Your task to perform on an android device: What's a good restaurant in San Diego? Image 0: 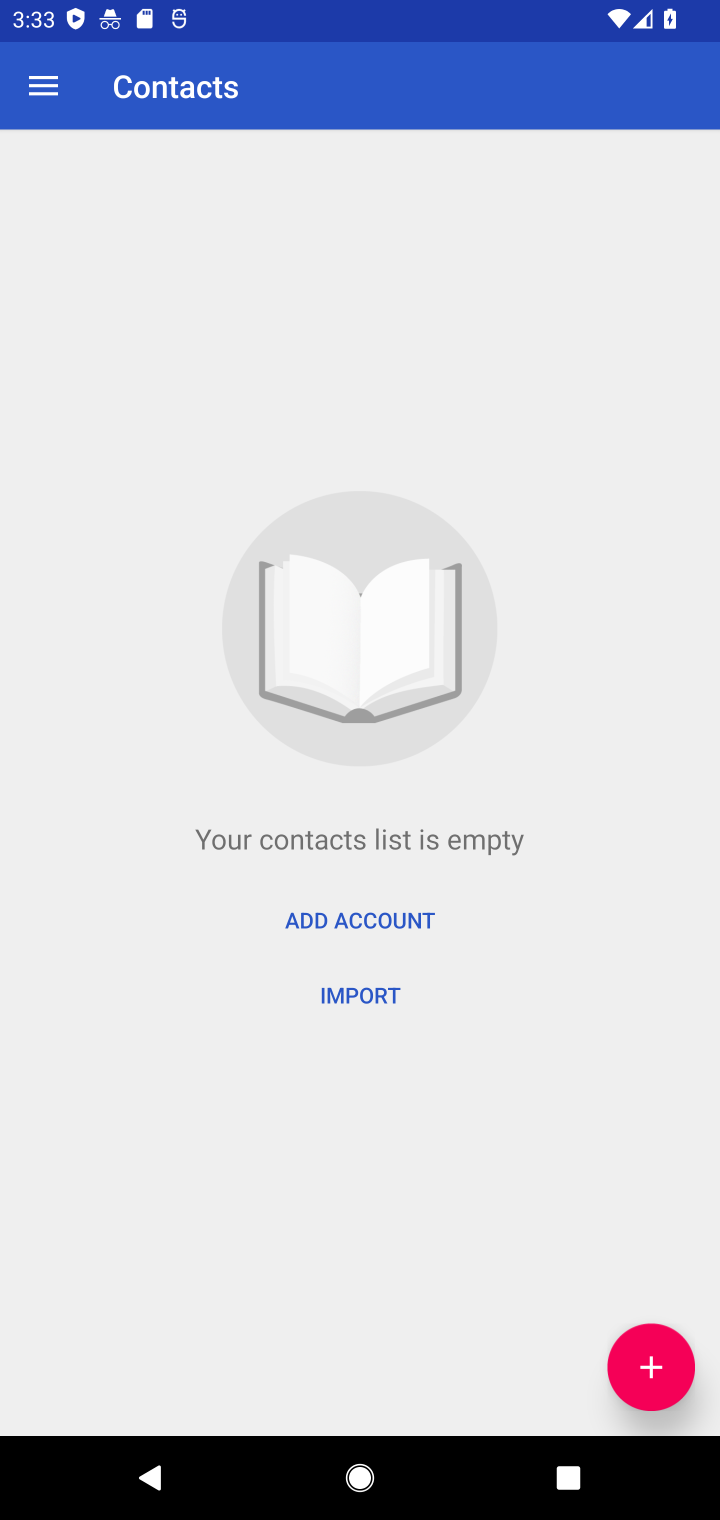
Step 0: press home button
Your task to perform on an android device: What's a good restaurant in San Diego? Image 1: 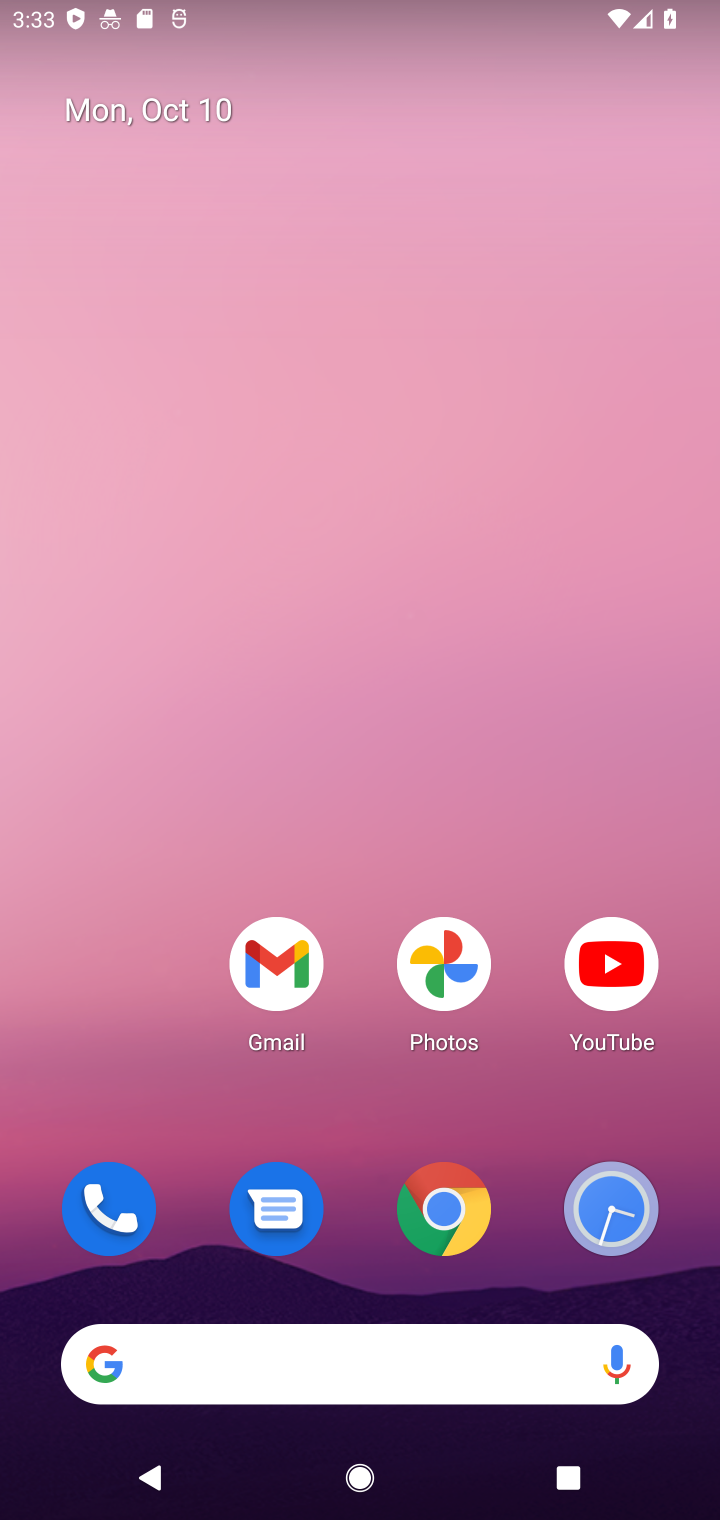
Step 1: drag from (48, 818) to (202, 1339)
Your task to perform on an android device: What's a good restaurant in San Diego? Image 2: 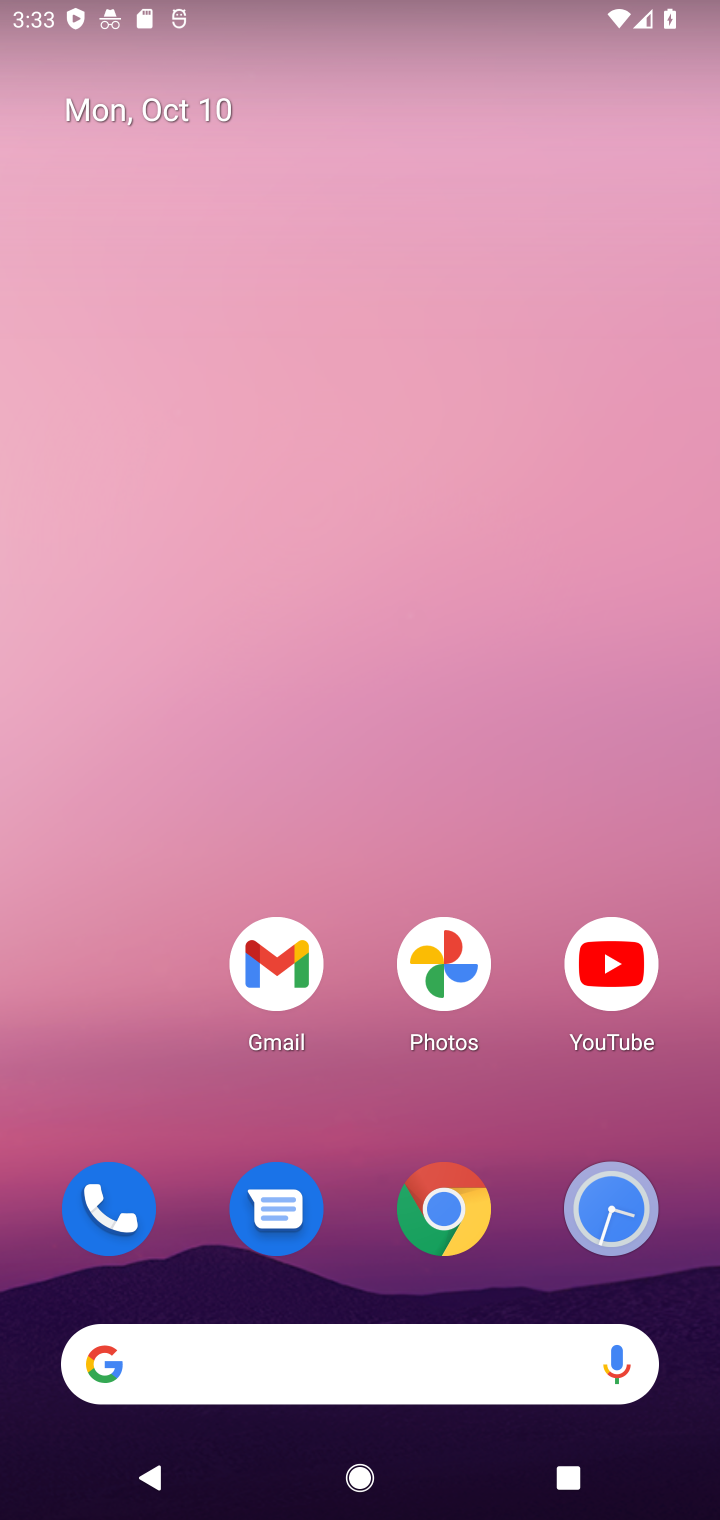
Step 2: click (479, 1189)
Your task to perform on an android device: What's a good restaurant in San Diego? Image 3: 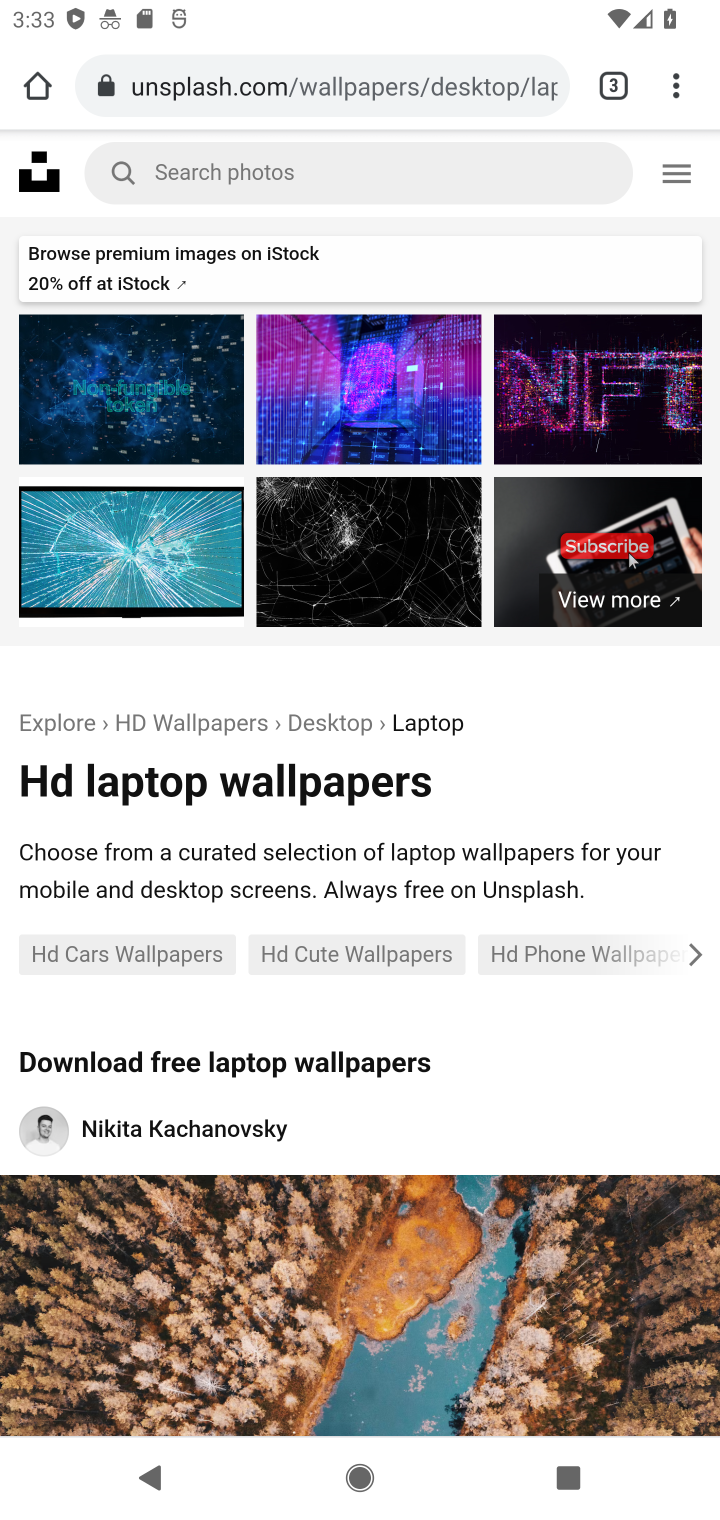
Step 3: click (276, 80)
Your task to perform on an android device: What's a good restaurant in San Diego? Image 4: 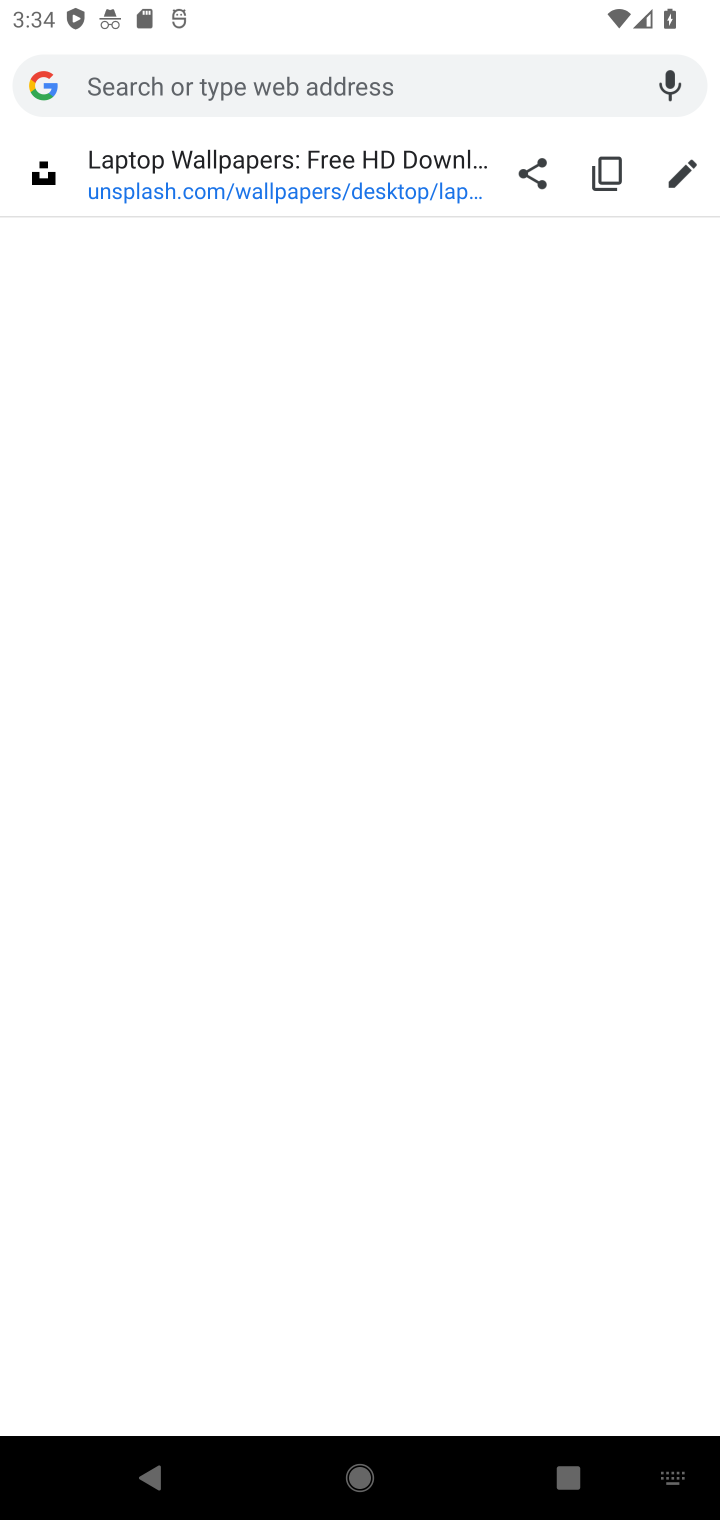
Step 4: type "What's a good restaurant in San Diego?"
Your task to perform on an android device: What's a good restaurant in San Diego? Image 5: 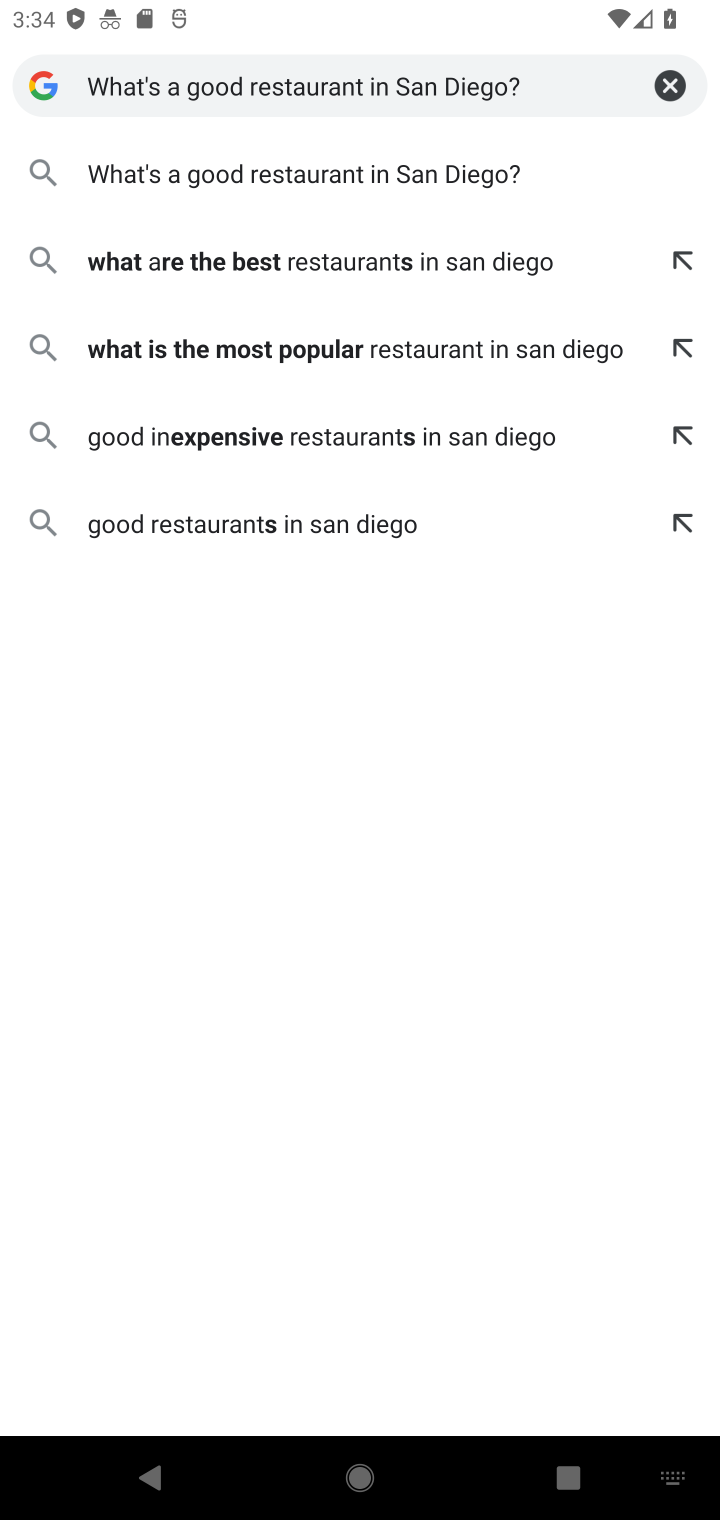
Step 5: click (324, 156)
Your task to perform on an android device: What's a good restaurant in San Diego? Image 6: 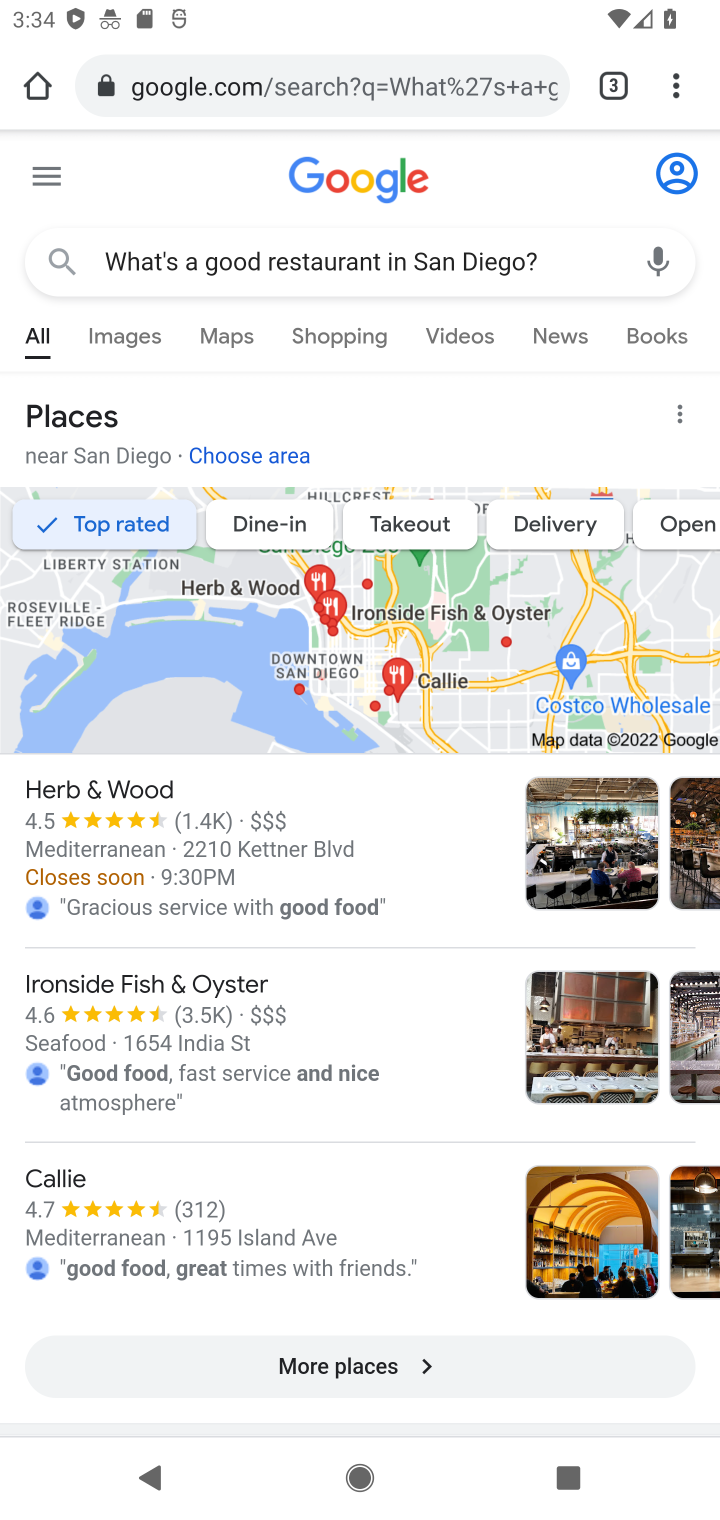
Step 6: task complete